Your task to perform on an android device: Open Youtube and go to the subscriptions tab Image 0: 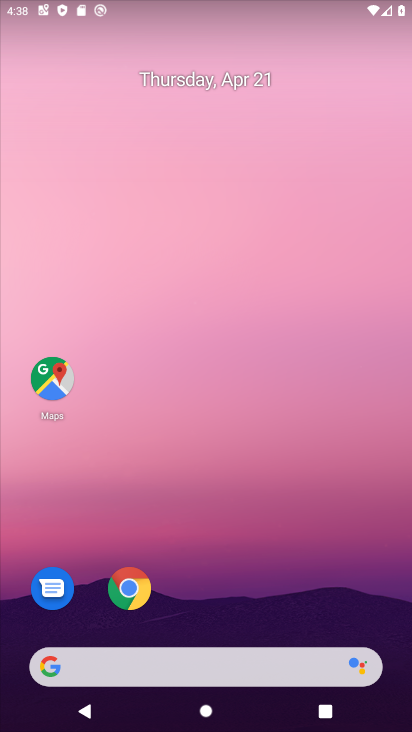
Step 0: drag from (260, 530) to (270, 136)
Your task to perform on an android device: Open Youtube and go to the subscriptions tab Image 1: 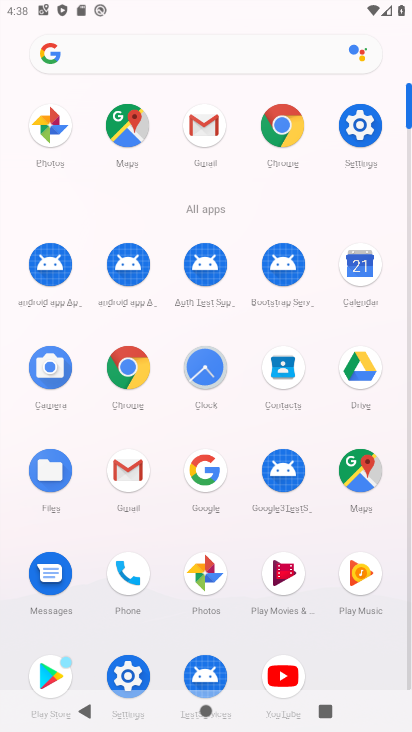
Step 1: click (289, 674)
Your task to perform on an android device: Open Youtube and go to the subscriptions tab Image 2: 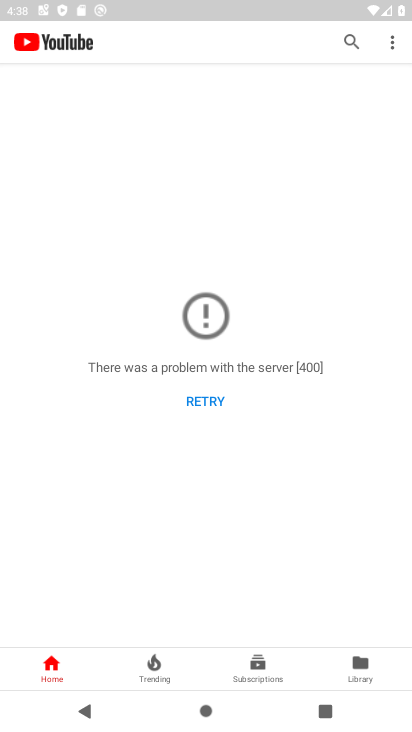
Step 2: click (261, 669)
Your task to perform on an android device: Open Youtube and go to the subscriptions tab Image 3: 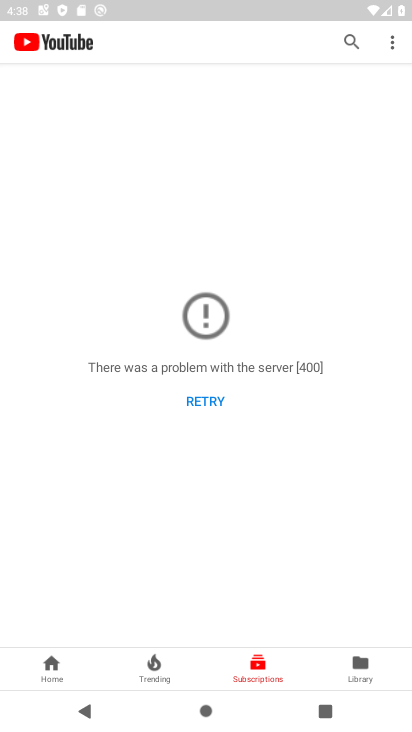
Step 3: task complete